Your task to perform on an android device: Go to ESPN.com Image 0: 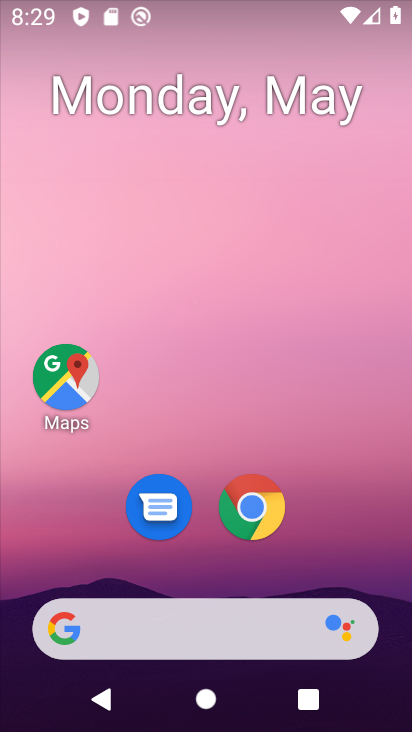
Step 0: click (247, 514)
Your task to perform on an android device: Go to ESPN.com Image 1: 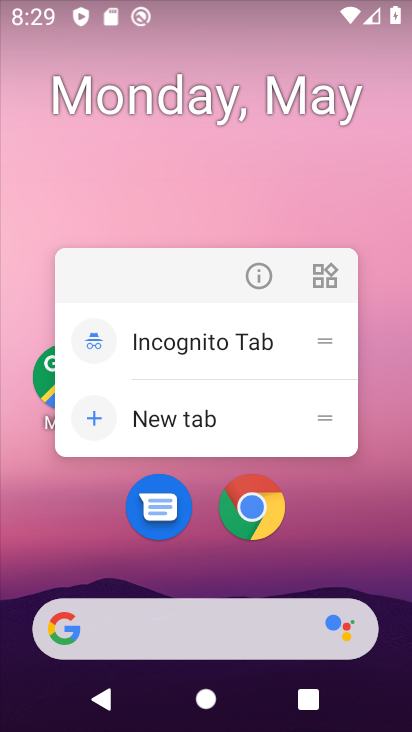
Step 1: click (265, 515)
Your task to perform on an android device: Go to ESPN.com Image 2: 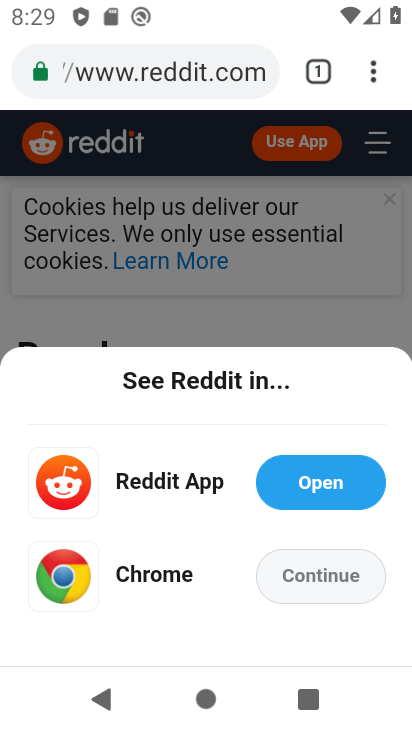
Step 2: click (220, 81)
Your task to perform on an android device: Go to ESPN.com Image 3: 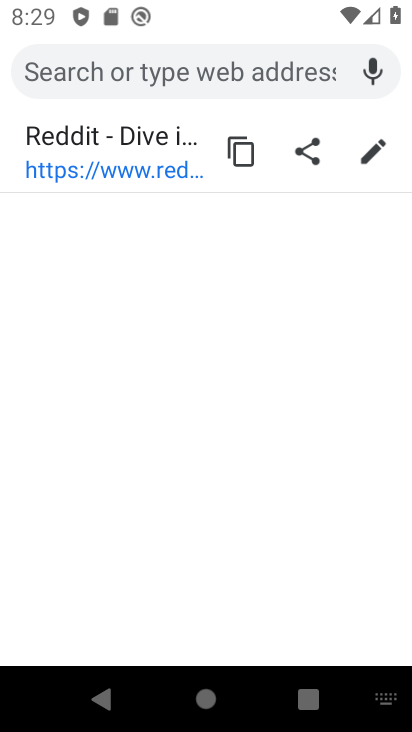
Step 3: type "ESPN.com"
Your task to perform on an android device: Go to ESPN.com Image 4: 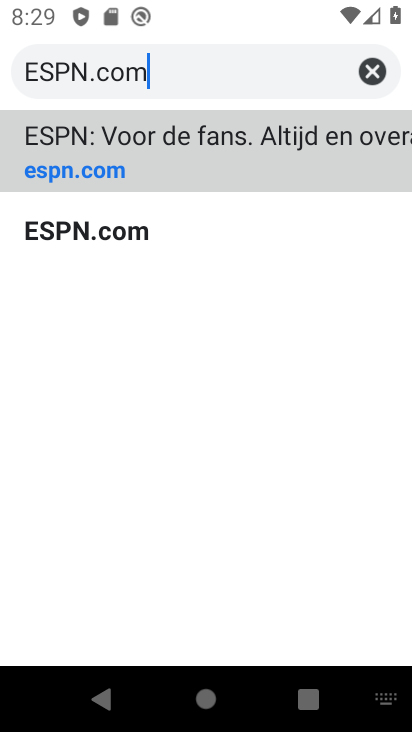
Step 4: click (134, 250)
Your task to perform on an android device: Go to ESPN.com Image 5: 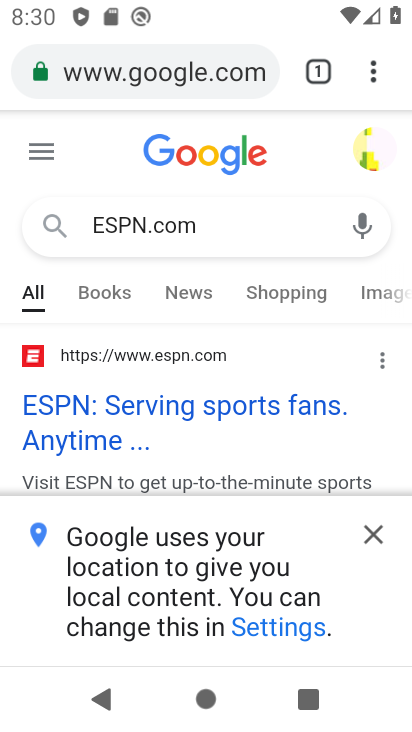
Step 5: click (369, 540)
Your task to perform on an android device: Go to ESPN.com Image 6: 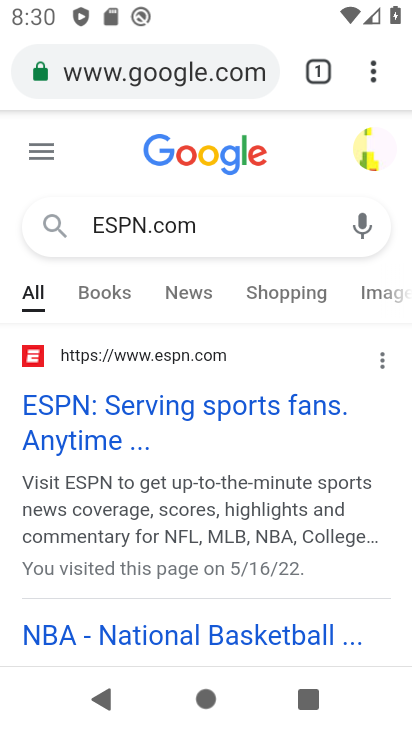
Step 6: task complete